Your task to perform on an android device: Go to privacy settings Image 0: 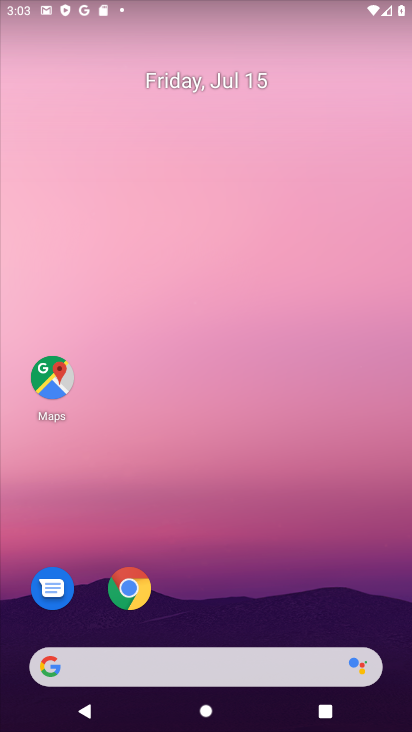
Step 0: drag from (337, 617) to (244, 136)
Your task to perform on an android device: Go to privacy settings Image 1: 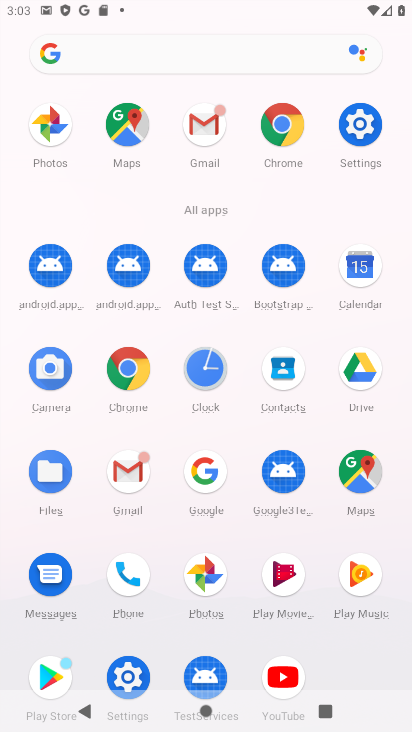
Step 1: click (364, 130)
Your task to perform on an android device: Go to privacy settings Image 2: 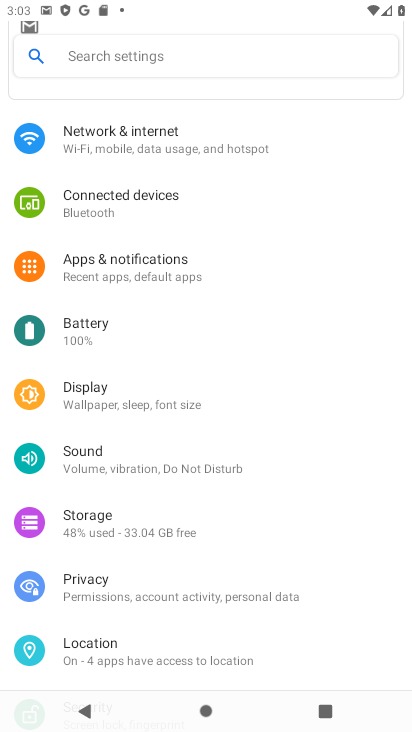
Step 2: click (221, 582)
Your task to perform on an android device: Go to privacy settings Image 3: 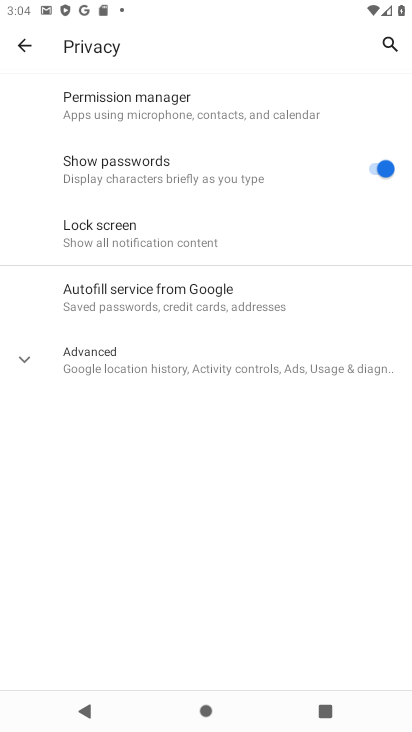
Step 3: task complete